Your task to perform on an android device: open sync settings in chrome Image 0: 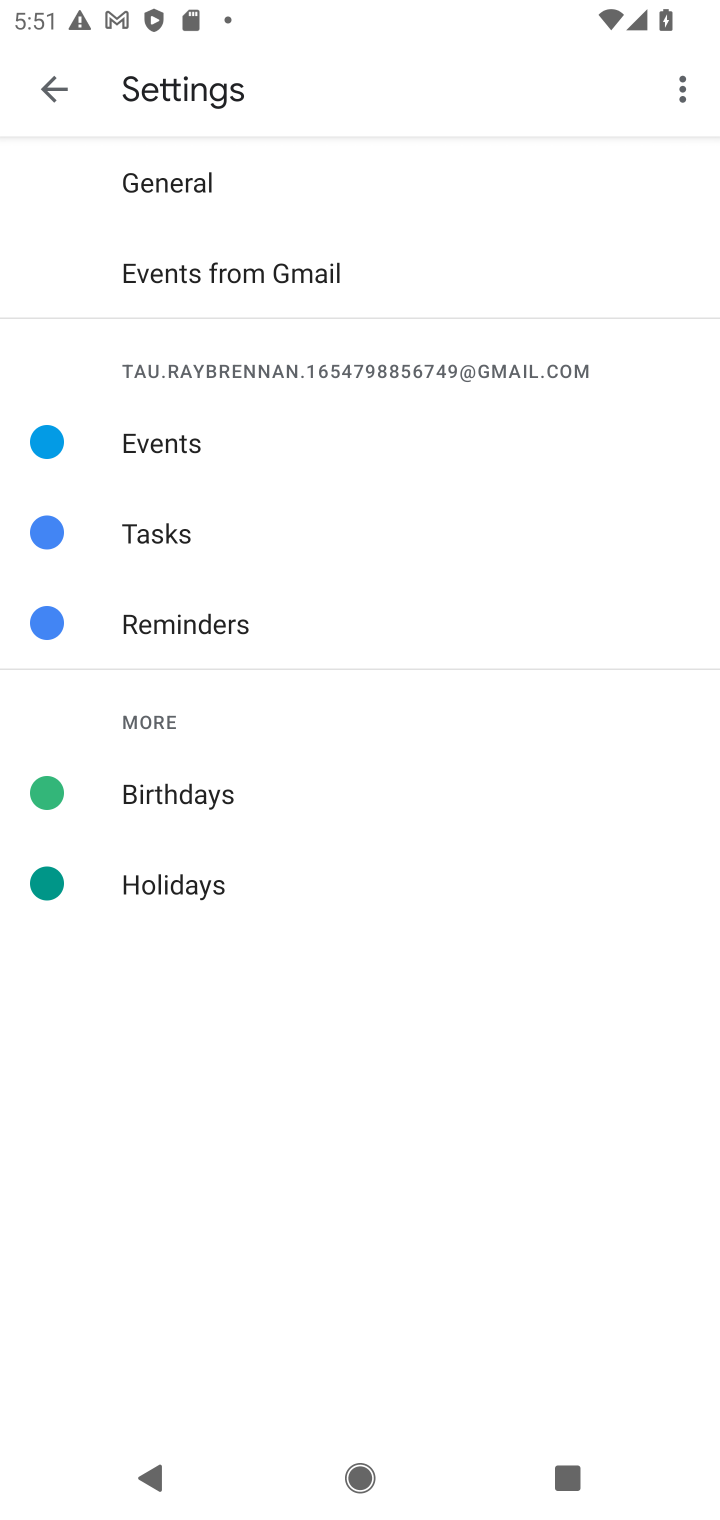
Step 0: drag from (317, 967) to (307, 136)
Your task to perform on an android device: open sync settings in chrome Image 1: 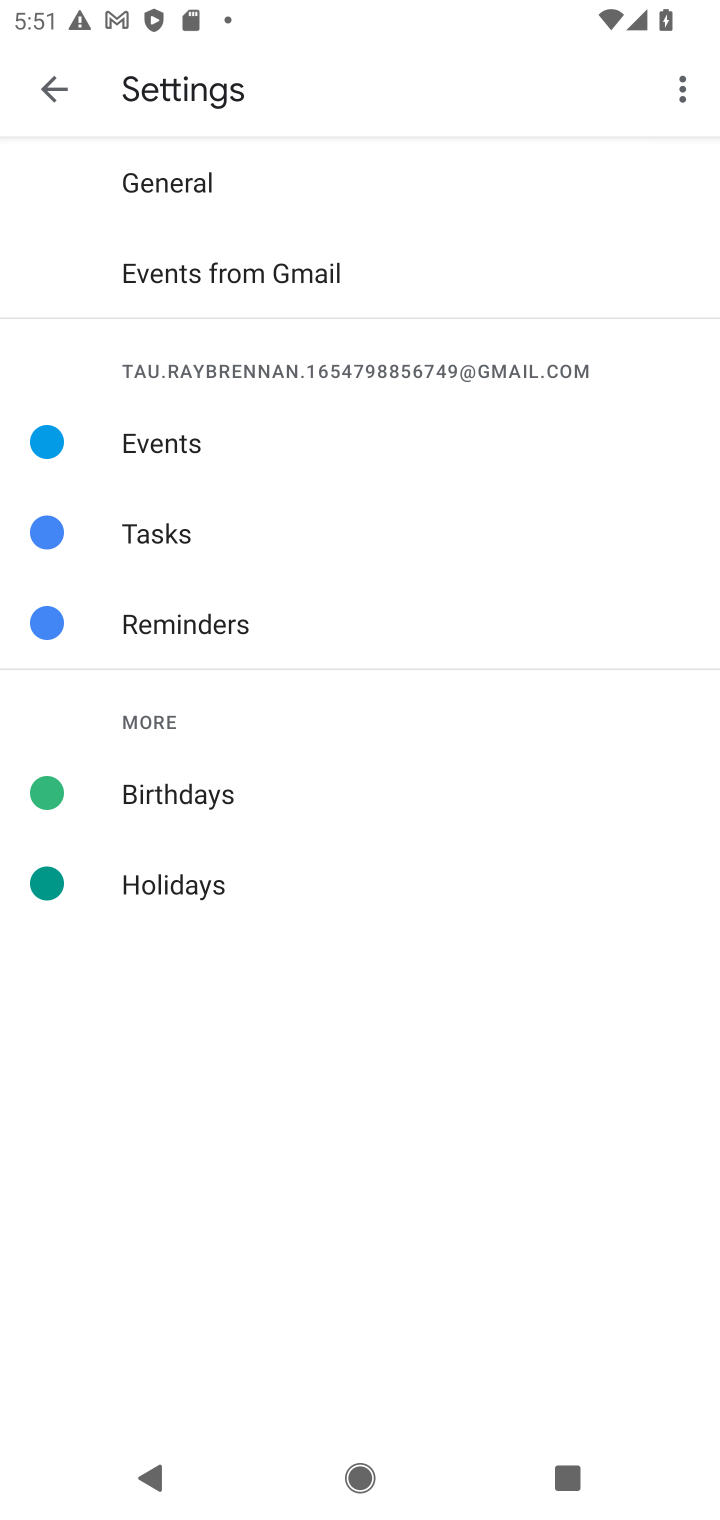
Step 1: task complete